Your task to perform on an android device: empty trash in google photos Image 0: 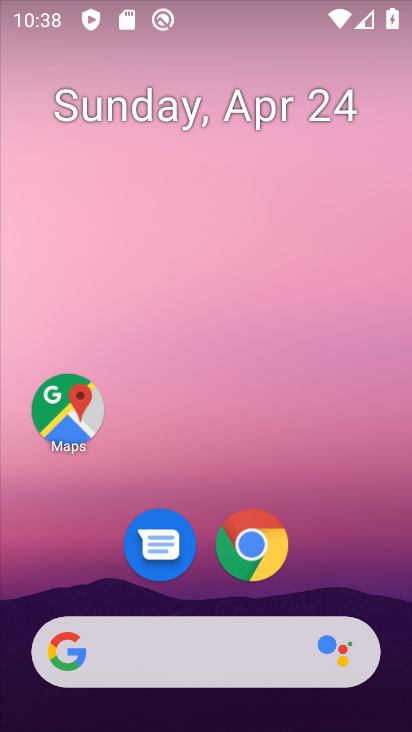
Step 0: drag from (301, 698) to (258, 162)
Your task to perform on an android device: empty trash in google photos Image 1: 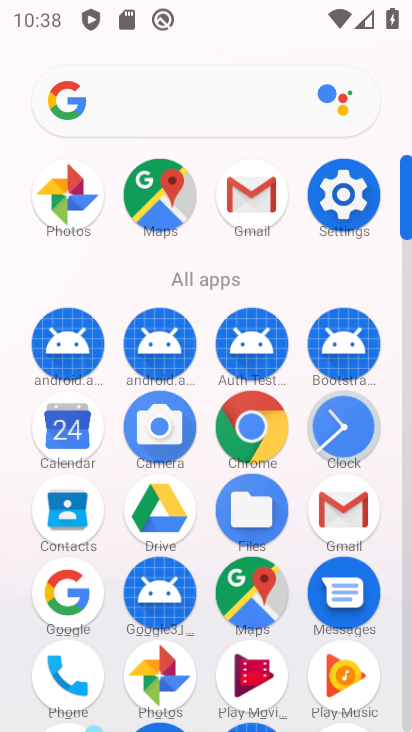
Step 1: click (165, 658)
Your task to perform on an android device: empty trash in google photos Image 2: 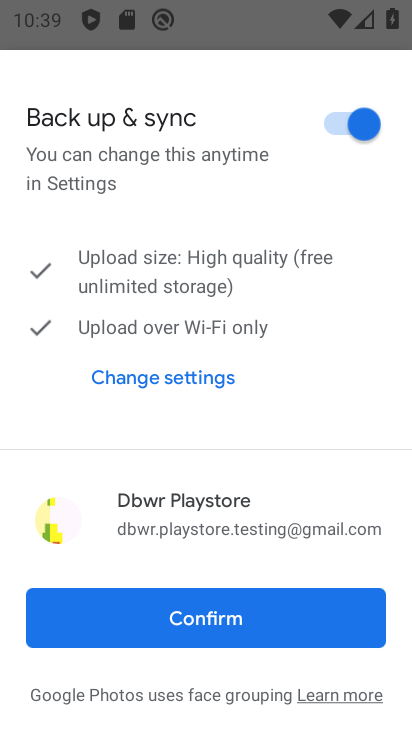
Step 2: click (158, 625)
Your task to perform on an android device: empty trash in google photos Image 3: 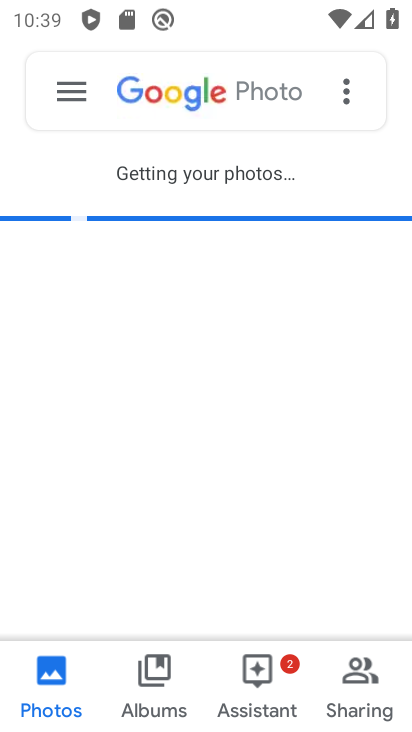
Step 3: click (66, 97)
Your task to perform on an android device: empty trash in google photos Image 4: 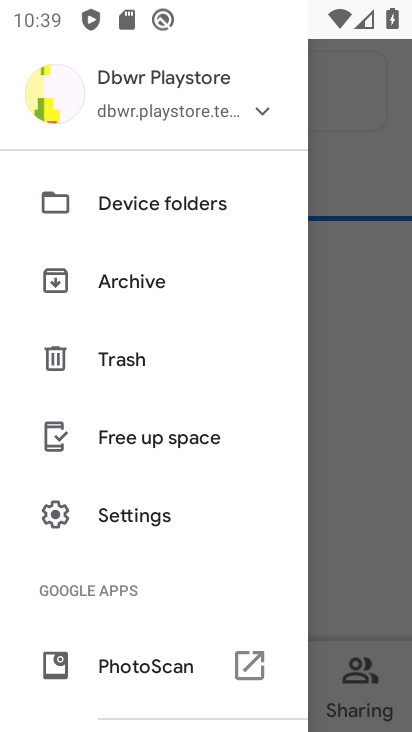
Step 4: click (129, 342)
Your task to perform on an android device: empty trash in google photos Image 5: 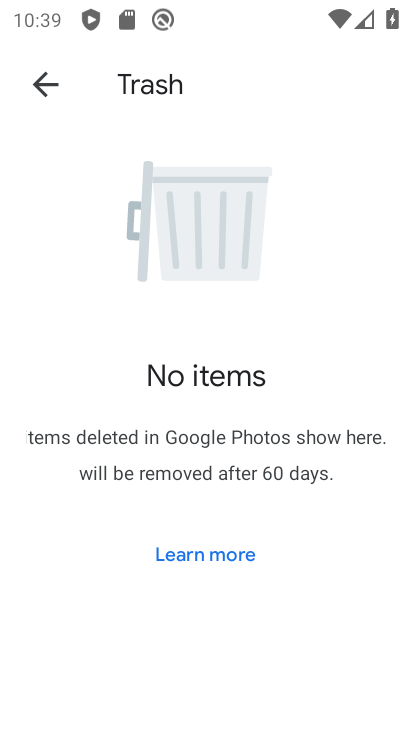
Step 5: task complete